Your task to perform on an android device: Open Google Maps Image 0: 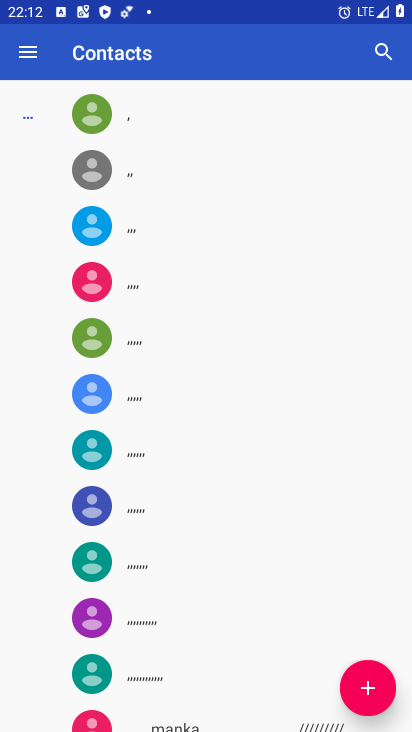
Step 0: press home button
Your task to perform on an android device: Open Google Maps Image 1: 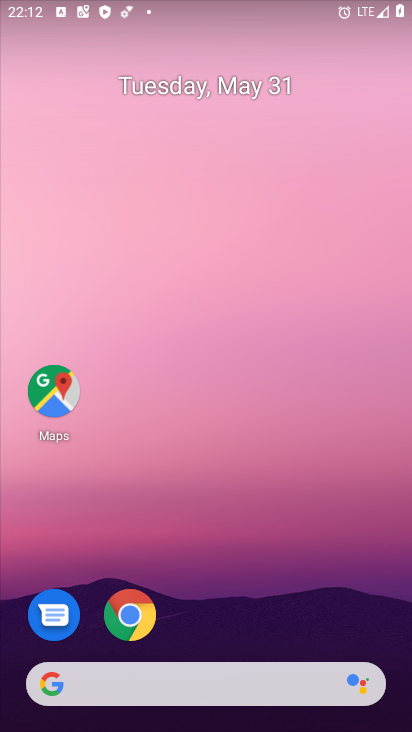
Step 1: click (55, 391)
Your task to perform on an android device: Open Google Maps Image 2: 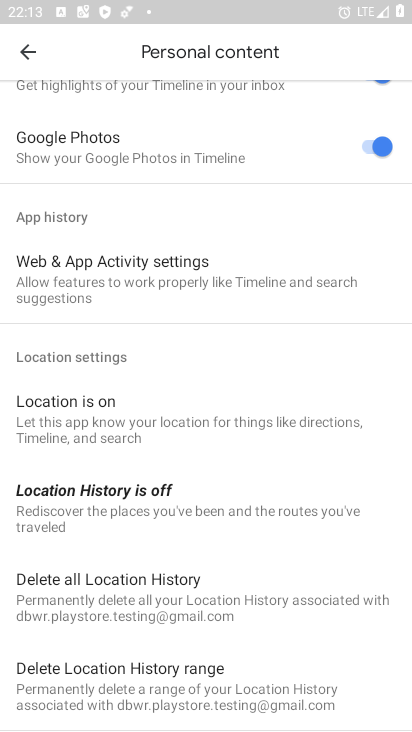
Step 2: press back button
Your task to perform on an android device: Open Google Maps Image 3: 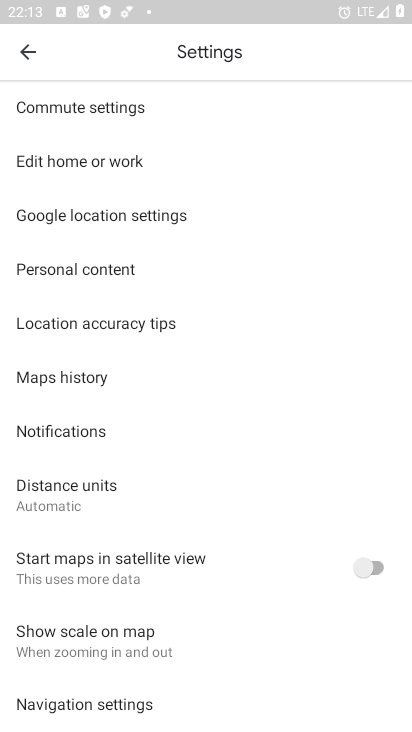
Step 3: press back button
Your task to perform on an android device: Open Google Maps Image 4: 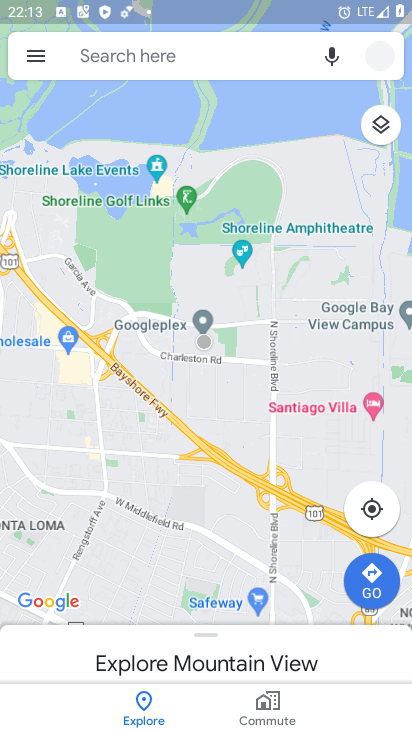
Step 4: press back button
Your task to perform on an android device: Open Google Maps Image 5: 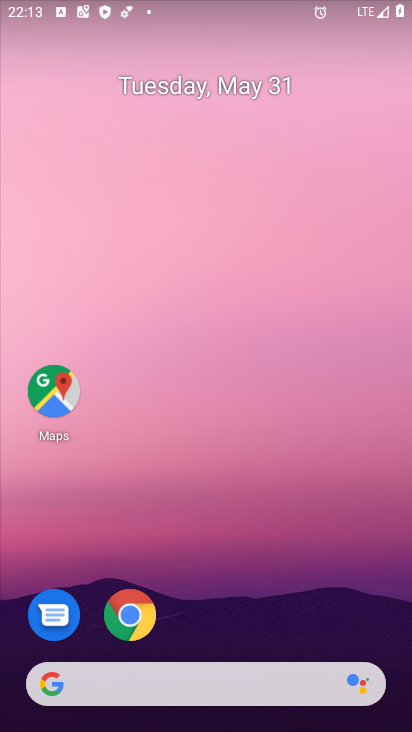
Step 5: click (58, 393)
Your task to perform on an android device: Open Google Maps Image 6: 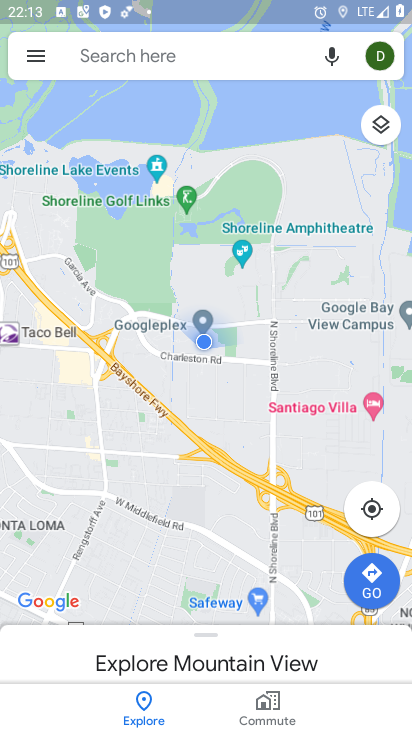
Step 6: task complete